Your task to perform on an android device: Turn off the flashlight Image 0: 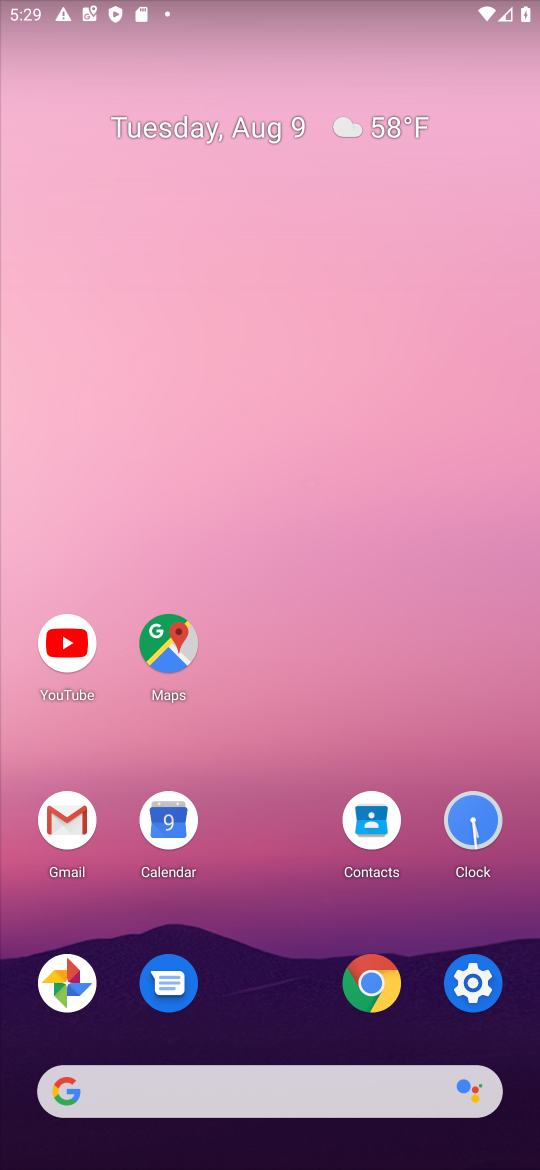
Step 0: click (474, 982)
Your task to perform on an android device: Turn off the flashlight Image 1: 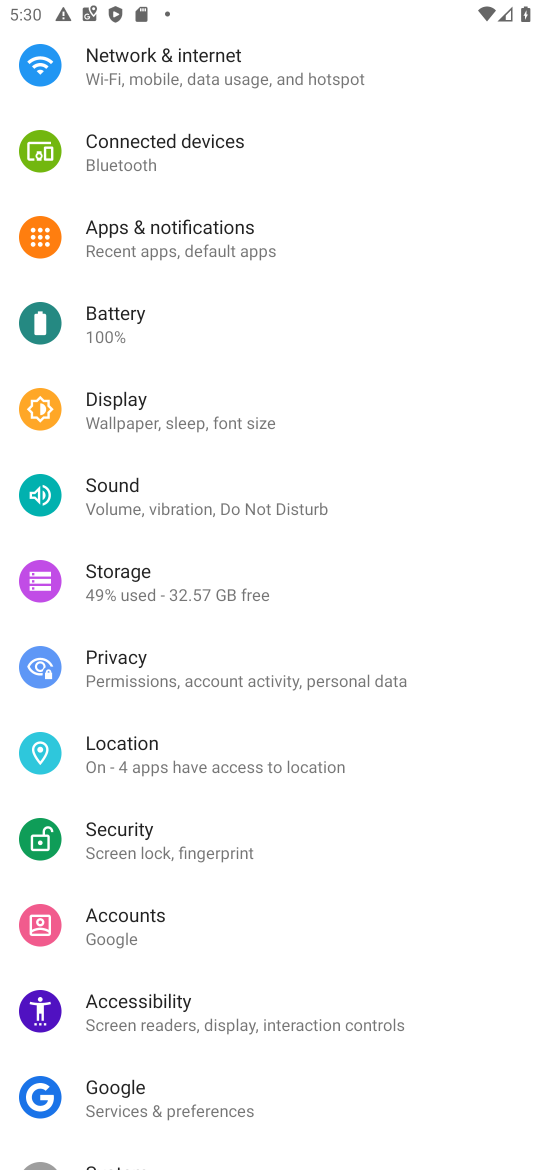
Step 1: click (131, 382)
Your task to perform on an android device: Turn off the flashlight Image 2: 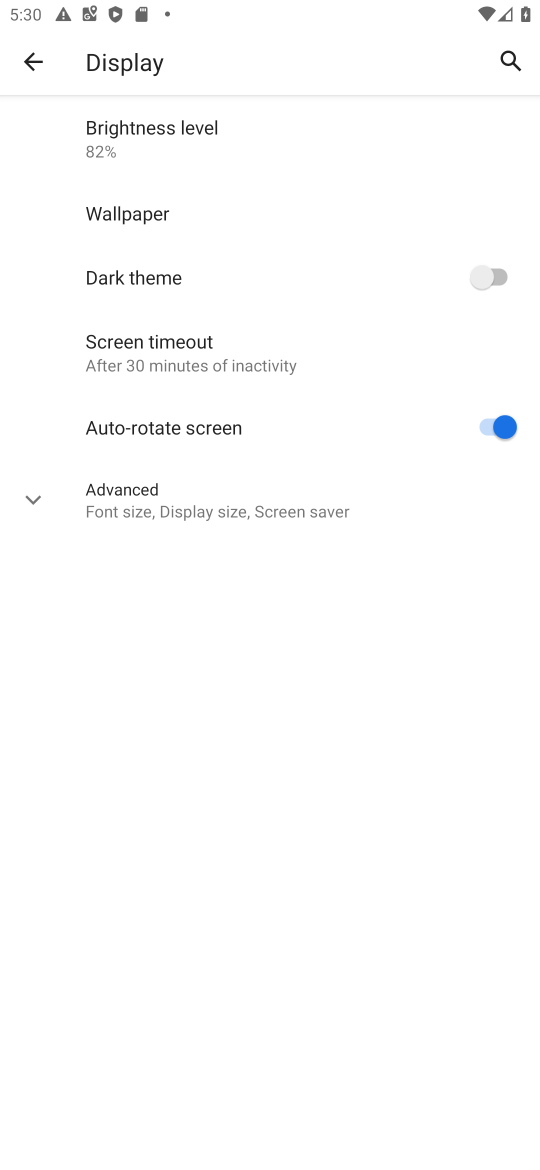
Step 2: task complete